Your task to perform on an android device: Search for the new Apple Watch on Best Buy Image 0: 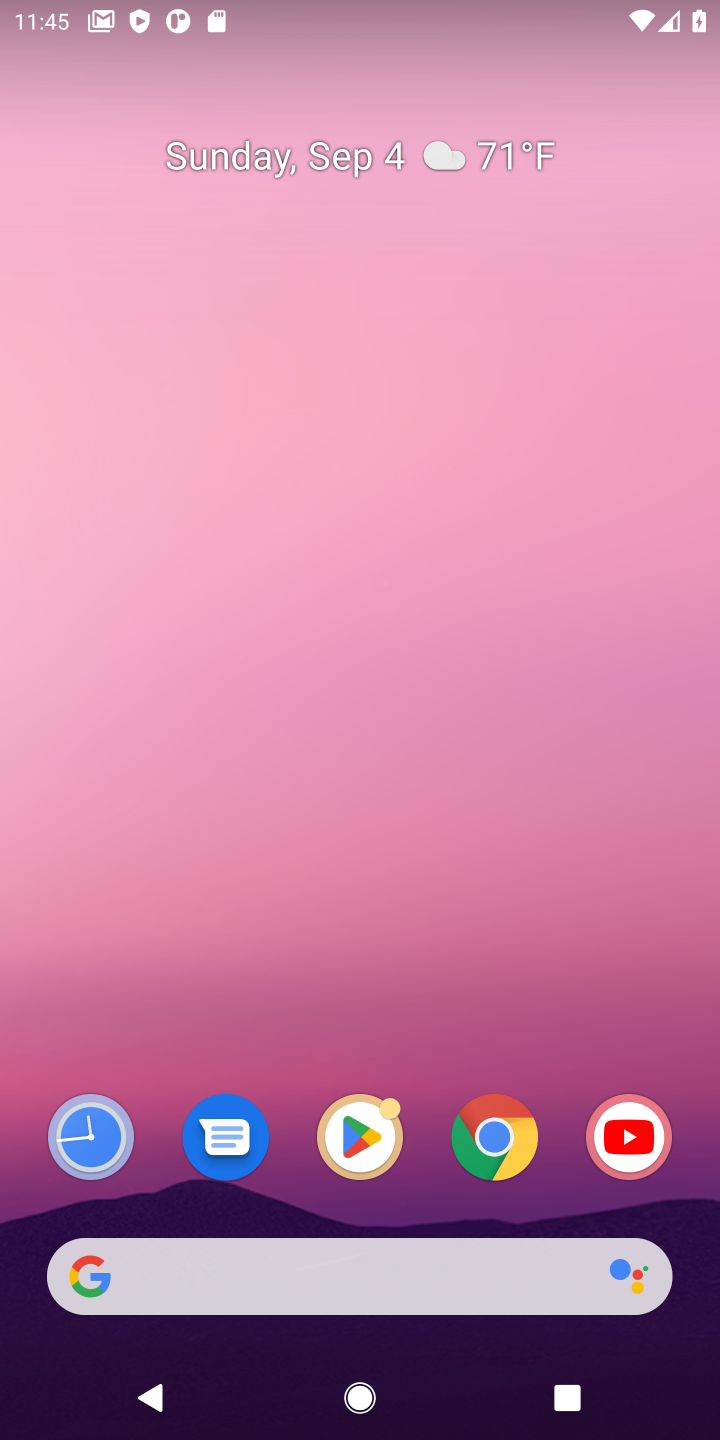
Step 0: click (478, 1145)
Your task to perform on an android device: Search for the new Apple Watch on Best Buy Image 1: 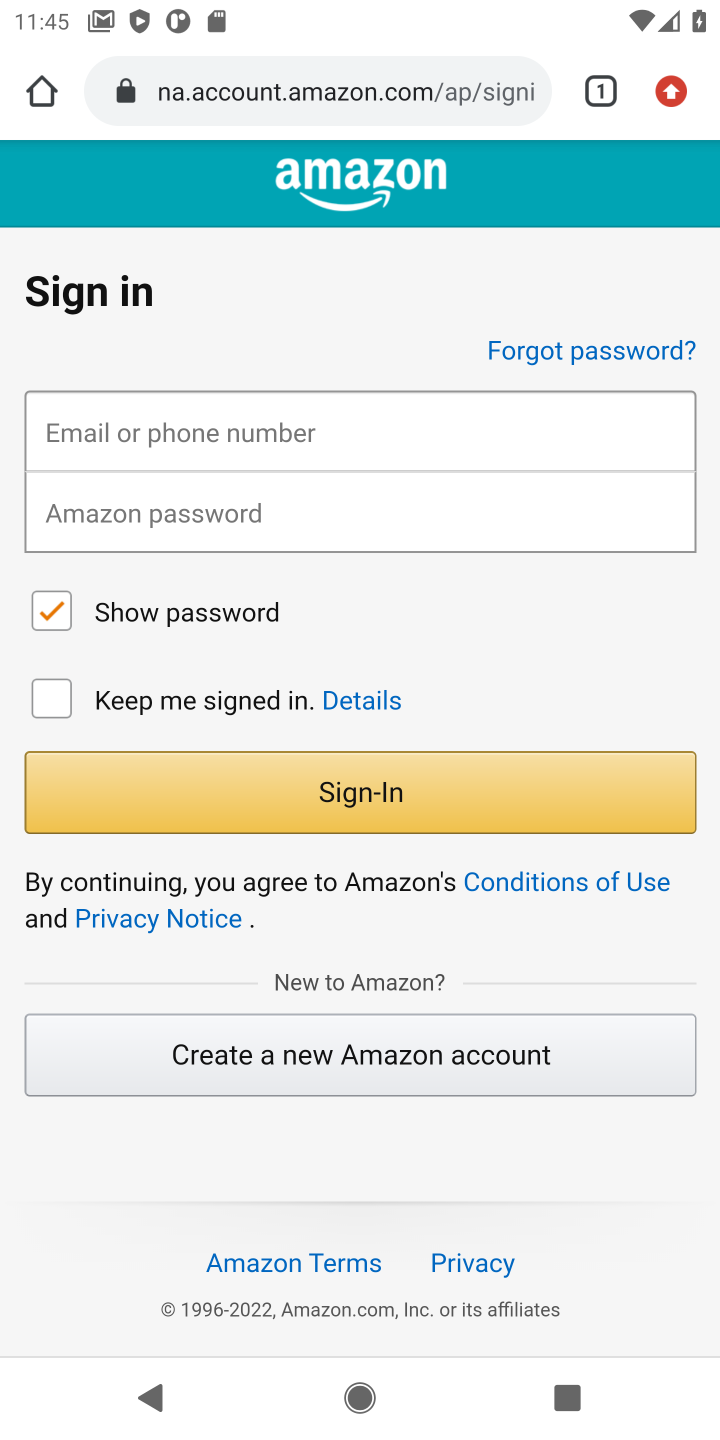
Step 1: click (355, 77)
Your task to perform on an android device: Search for the new Apple Watch on Best Buy Image 2: 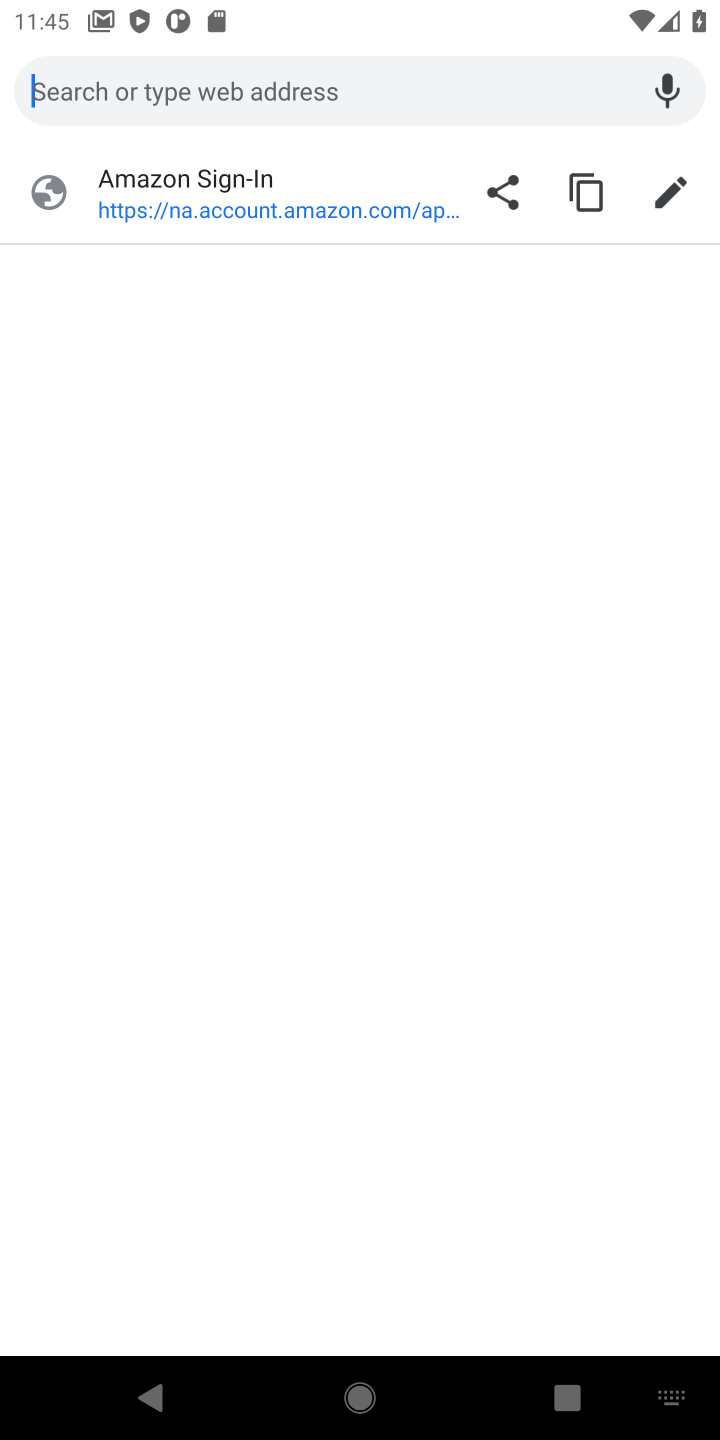
Step 2: type "best buy"
Your task to perform on an android device: Search for the new Apple Watch on Best Buy Image 3: 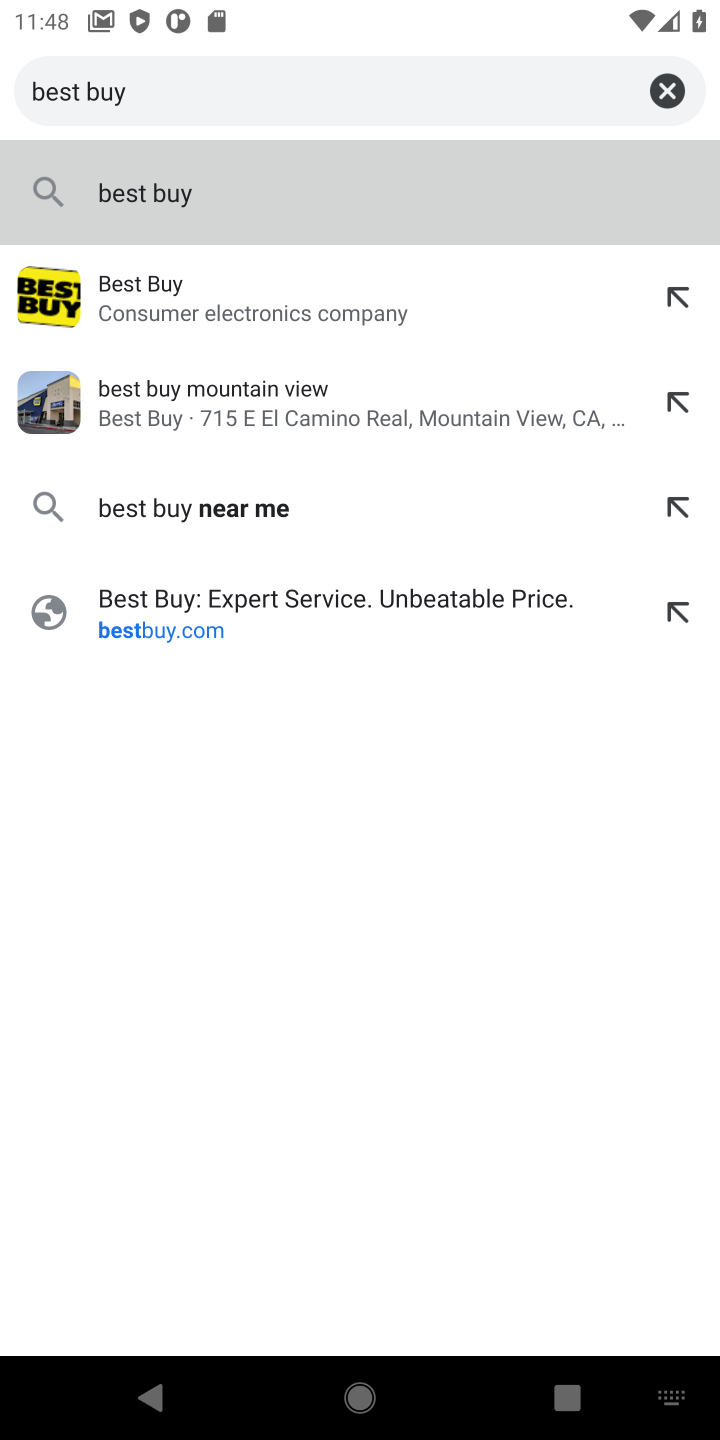
Step 3: click (151, 322)
Your task to perform on an android device: Search for the new Apple Watch on Best Buy Image 4: 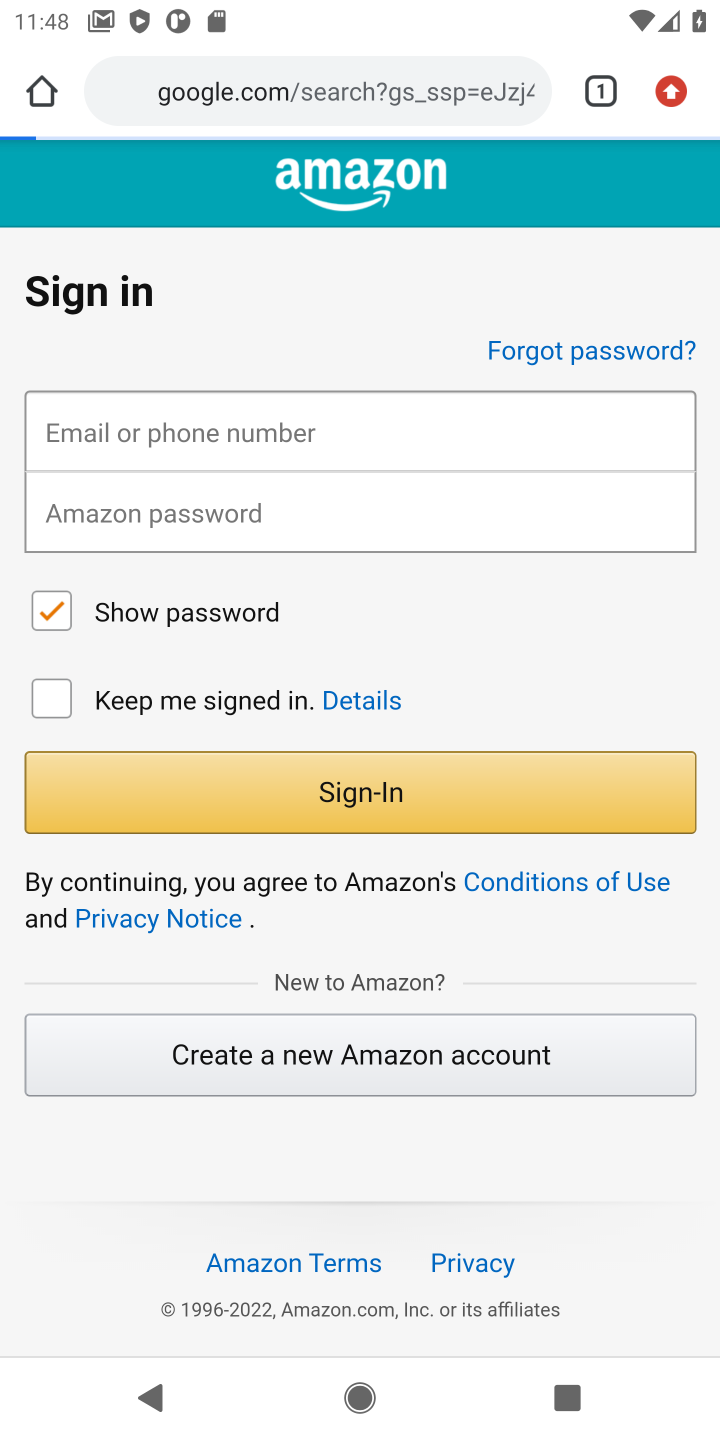
Step 4: click (205, 300)
Your task to perform on an android device: Search for the new Apple Watch on Best Buy Image 5: 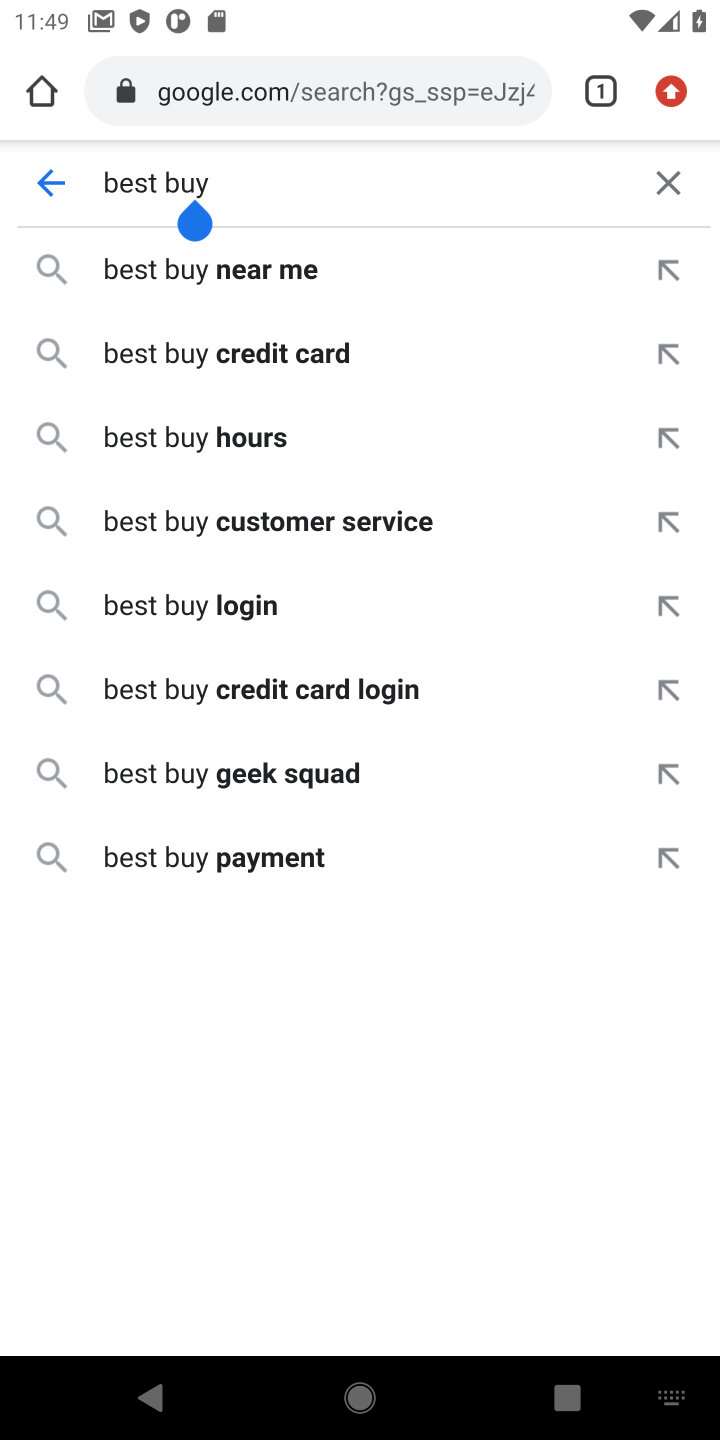
Step 5: click (356, 265)
Your task to perform on an android device: Search for the new Apple Watch on Best Buy Image 6: 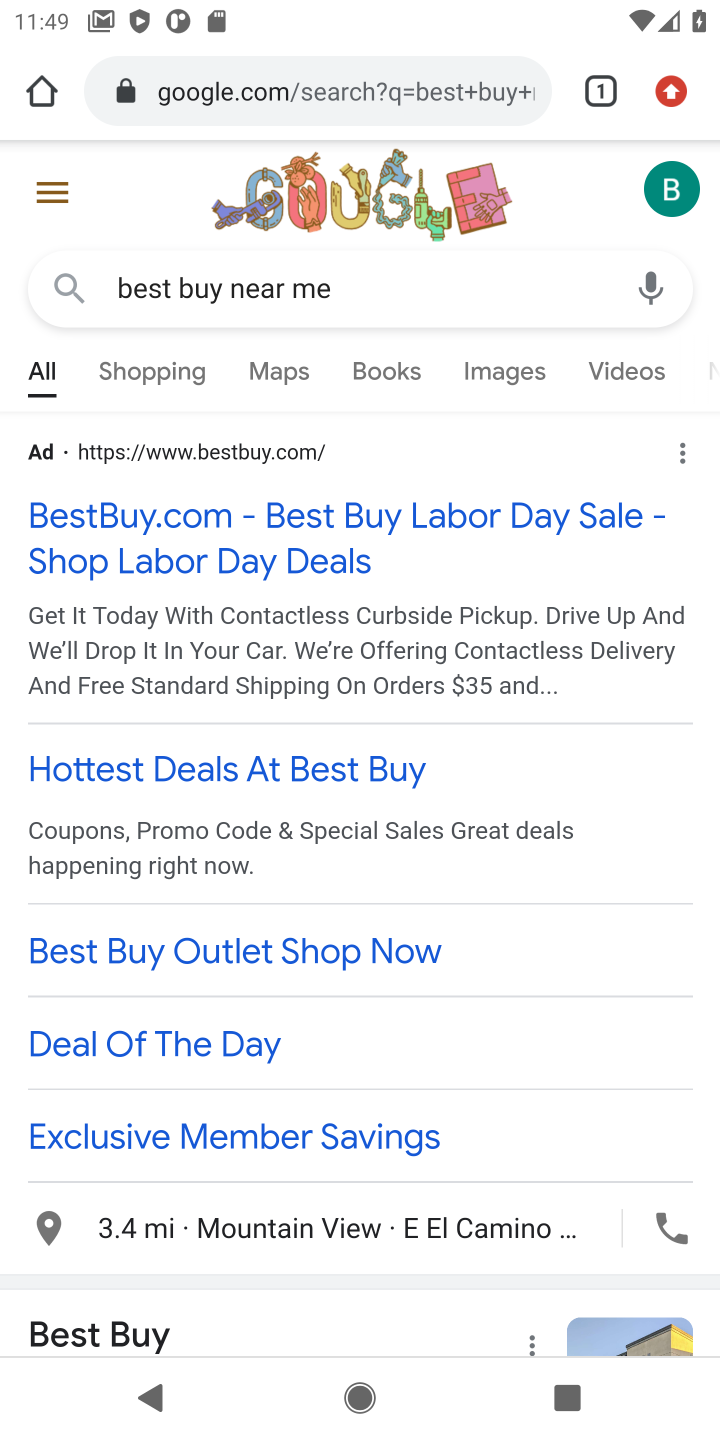
Step 6: click (278, 522)
Your task to perform on an android device: Search for the new Apple Watch on Best Buy Image 7: 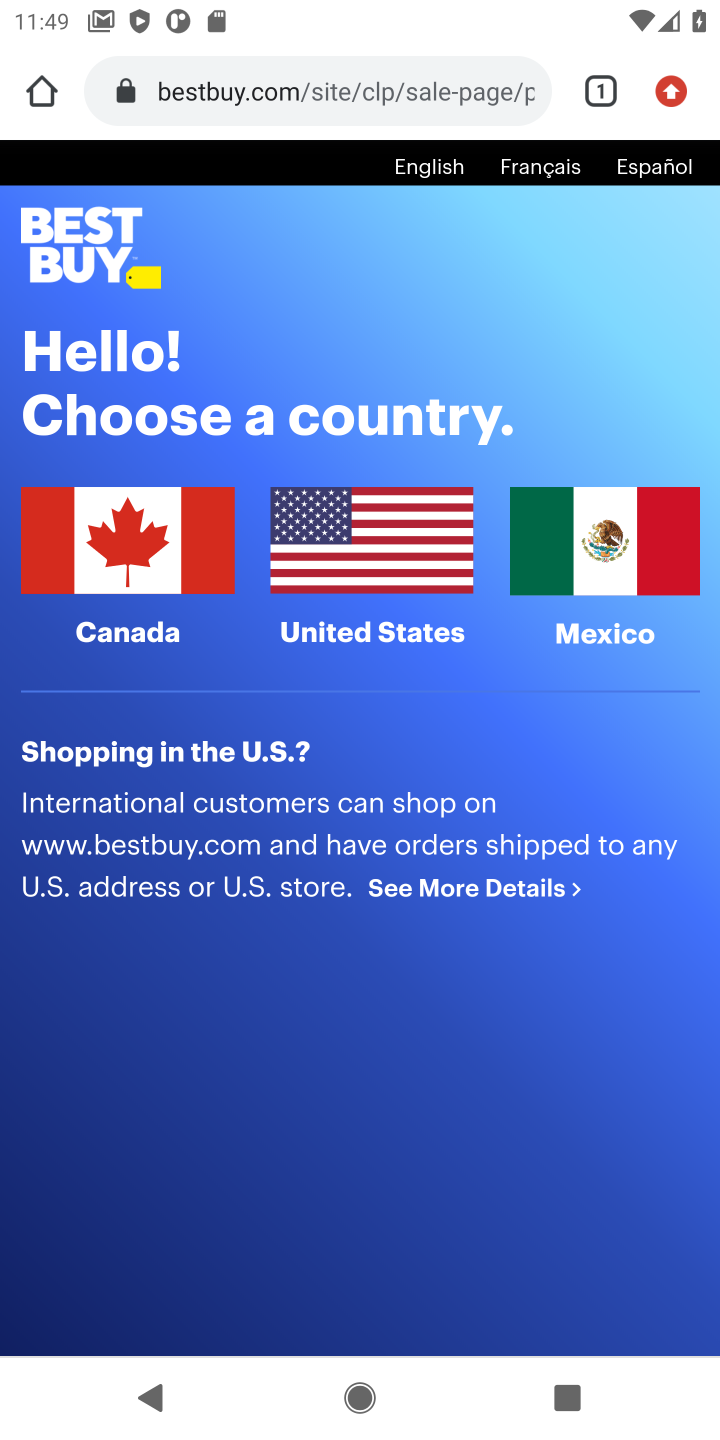
Step 7: task complete